Your task to perform on an android device: Open wifi settings Image 0: 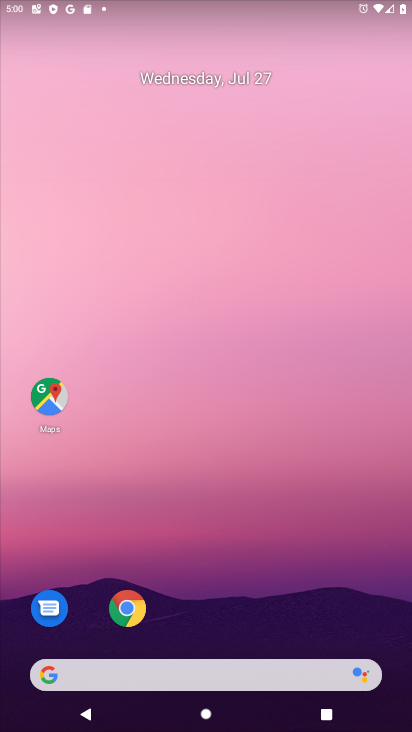
Step 0: drag from (251, 632) to (188, 51)
Your task to perform on an android device: Open wifi settings Image 1: 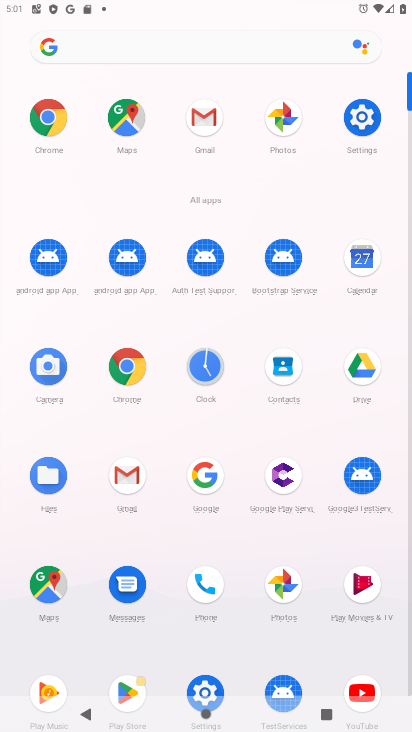
Step 1: click (339, 112)
Your task to perform on an android device: Open wifi settings Image 2: 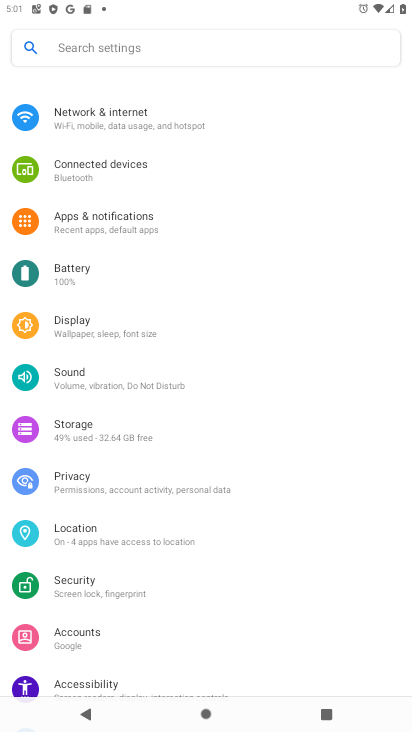
Step 2: click (102, 181)
Your task to perform on an android device: Open wifi settings Image 3: 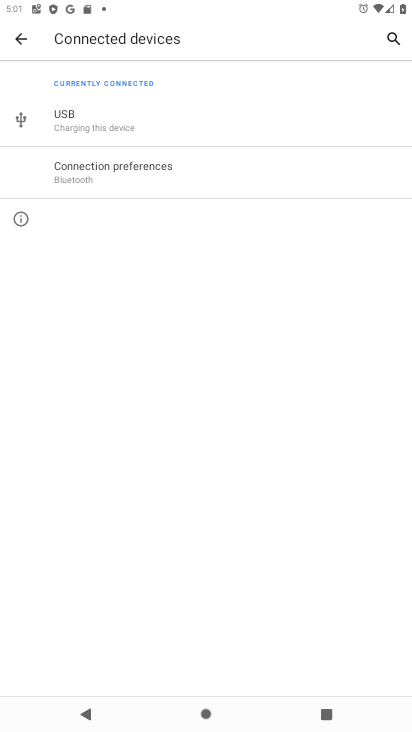
Step 3: click (20, 45)
Your task to perform on an android device: Open wifi settings Image 4: 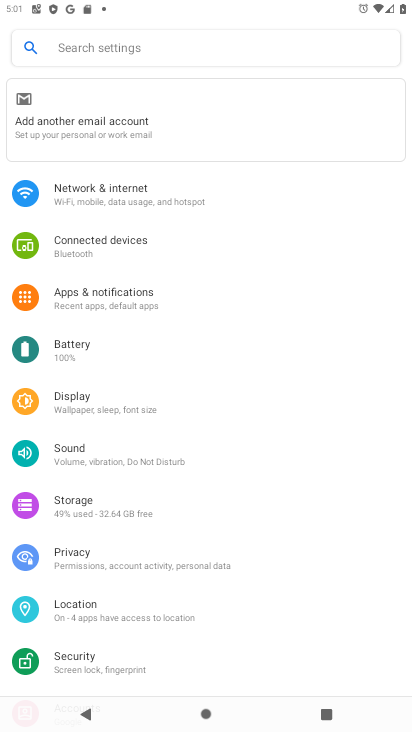
Step 4: click (138, 179)
Your task to perform on an android device: Open wifi settings Image 5: 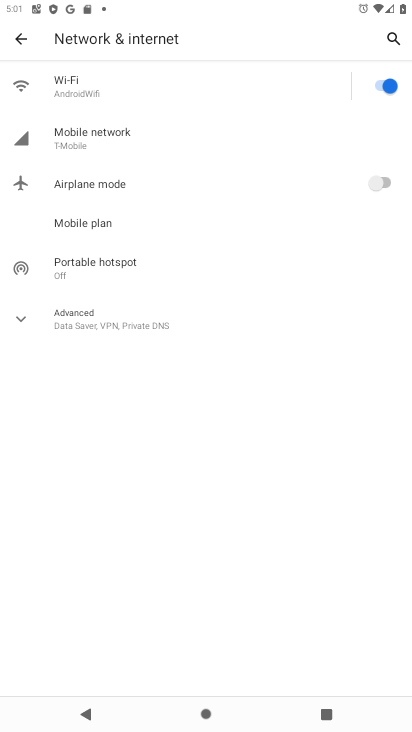
Step 5: click (302, 69)
Your task to perform on an android device: Open wifi settings Image 6: 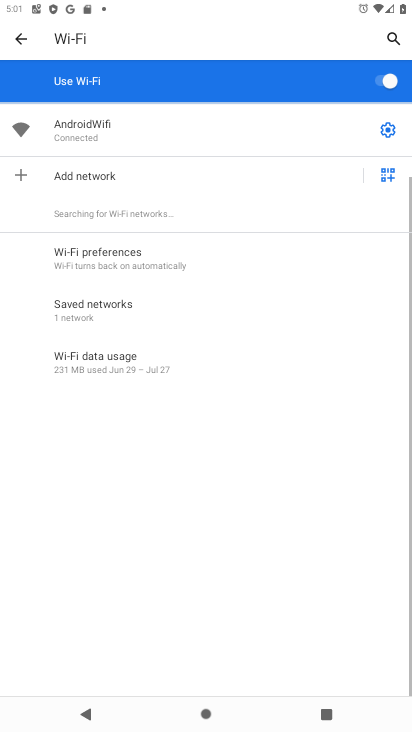
Step 6: task complete